Your task to perform on an android device: Open Google Chrome and click the shortcut for Amazon.com Image 0: 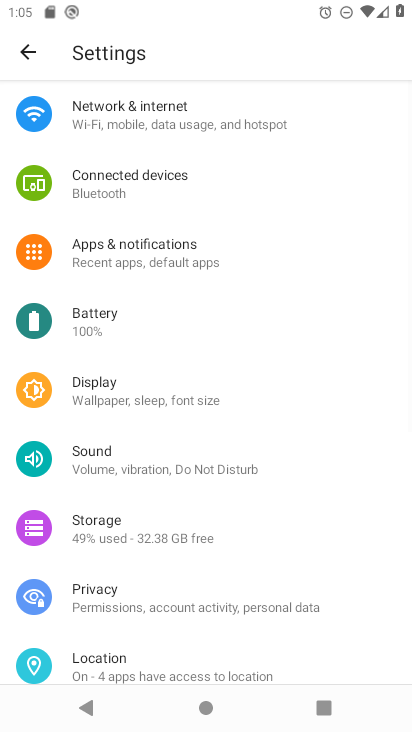
Step 0: press home button
Your task to perform on an android device: Open Google Chrome and click the shortcut for Amazon.com Image 1: 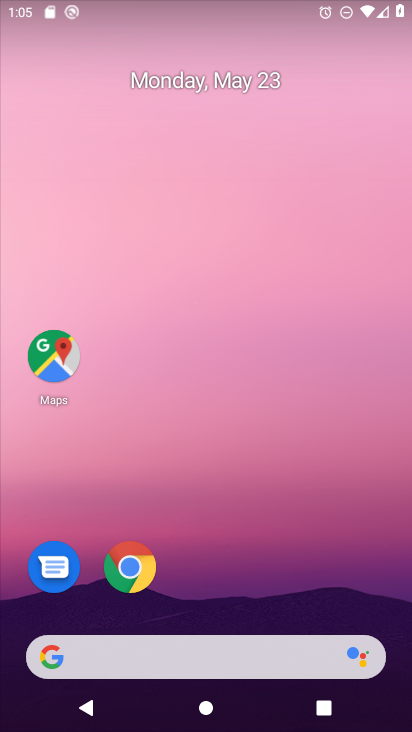
Step 1: click (121, 566)
Your task to perform on an android device: Open Google Chrome and click the shortcut for Amazon.com Image 2: 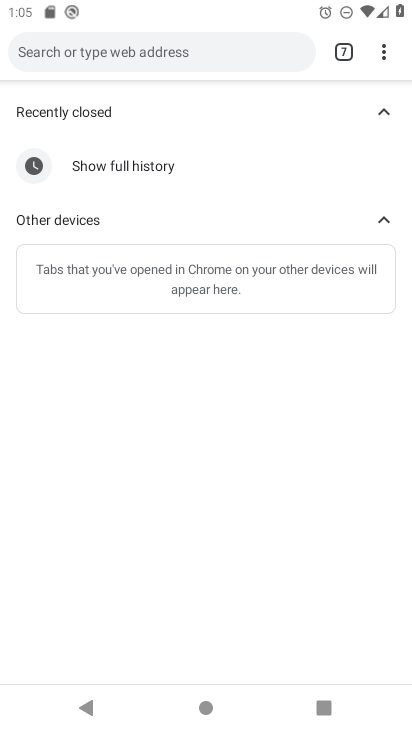
Step 2: click (351, 58)
Your task to perform on an android device: Open Google Chrome and click the shortcut for Amazon.com Image 3: 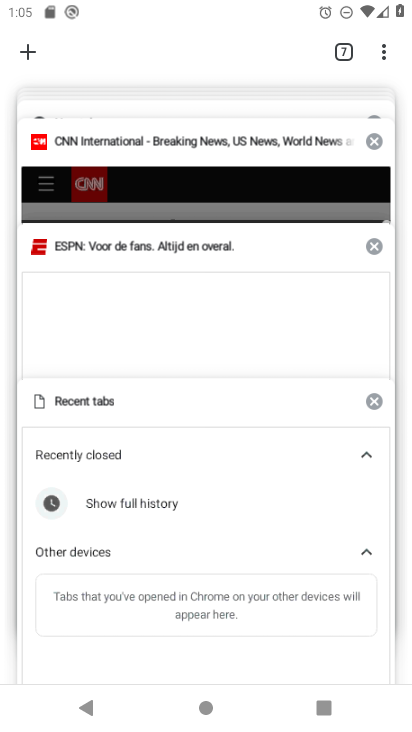
Step 3: click (12, 49)
Your task to perform on an android device: Open Google Chrome and click the shortcut for Amazon.com Image 4: 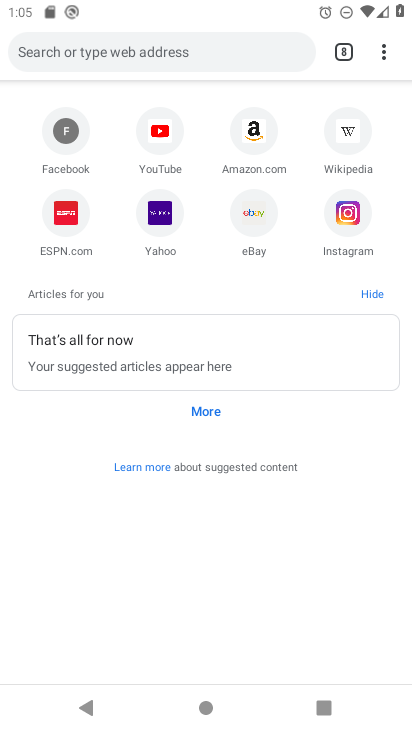
Step 4: click (258, 136)
Your task to perform on an android device: Open Google Chrome and click the shortcut for Amazon.com Image 5: 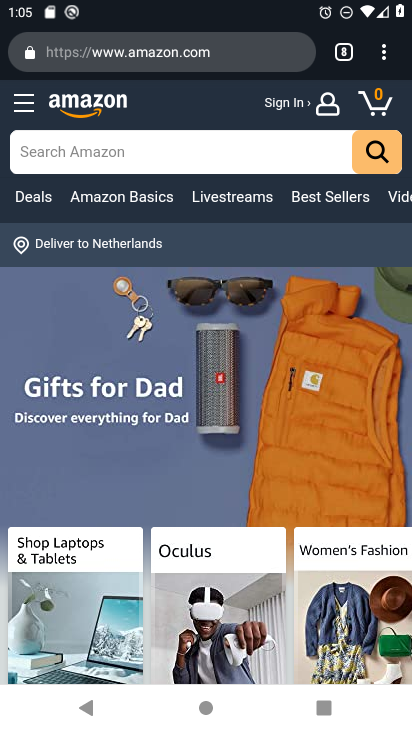
Step 5: task complete